Your task to perform on an android device: toggle javascript in the chrome app Image 0: 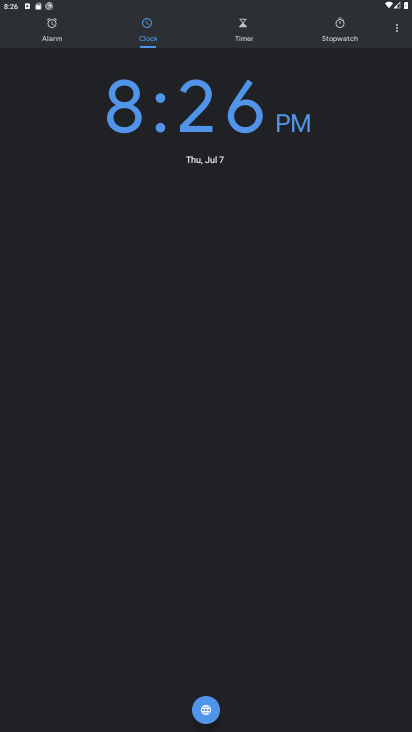
Step 0: press home button
Your task to perform on an android device: toggle javascript in the chrome app Image 1: 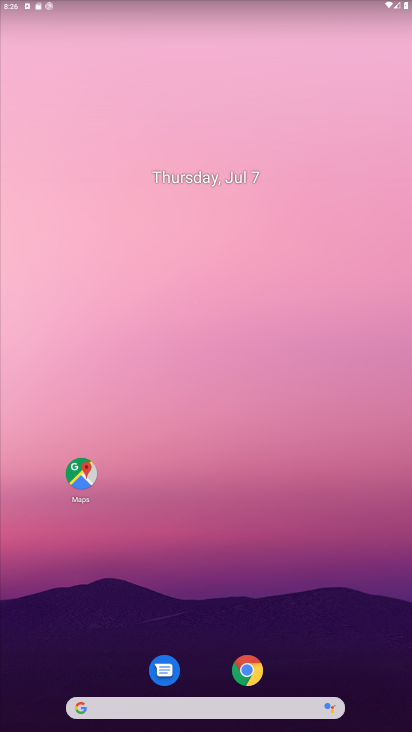
Step 1: drag from (0, 632) to (205, 161)
Your task to perform on an android device: toggle javascript in the chrome app Image 2: 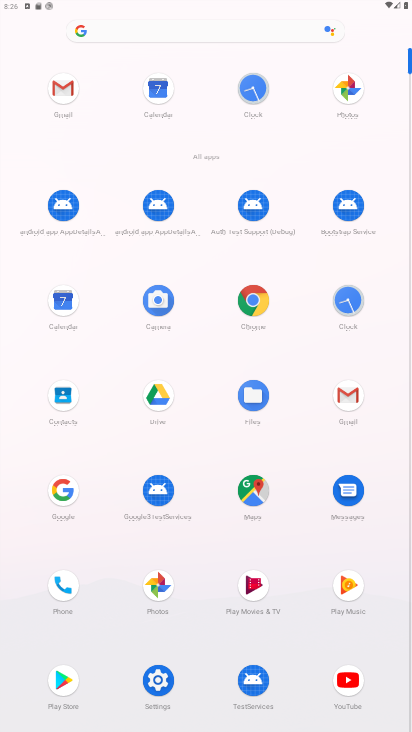
Step 2: click (250, 297)
Your task to perform on an android device: toggle javascript in the chrome app Image 3: 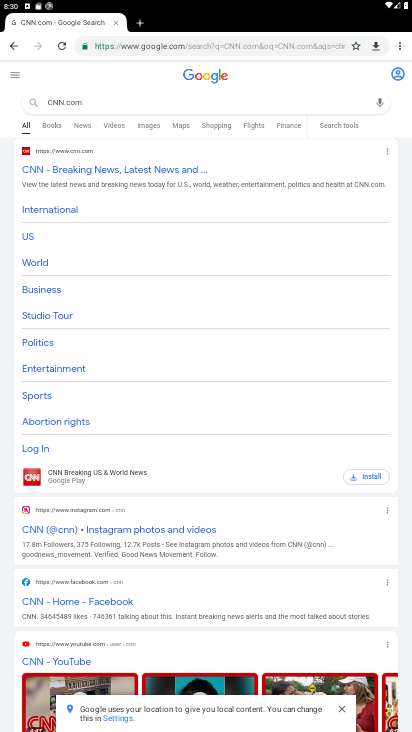
Step 3: task complete